Your task to perform on an android device: Go to settings Image 0: 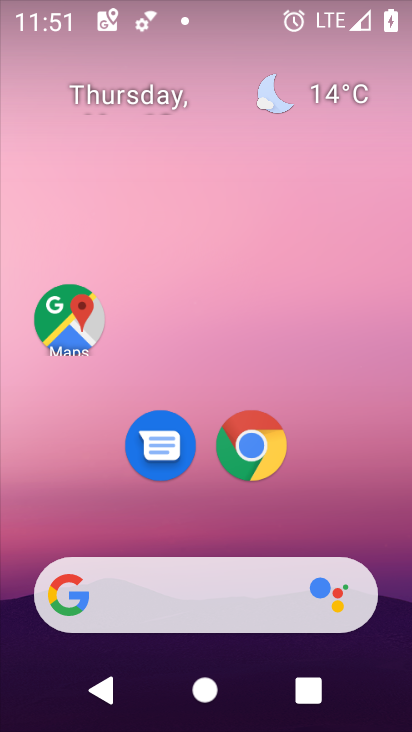
Step 0: drag from (199, 520) to (222, 174)
Your task to perform on an android device: Go to settings Image 1: 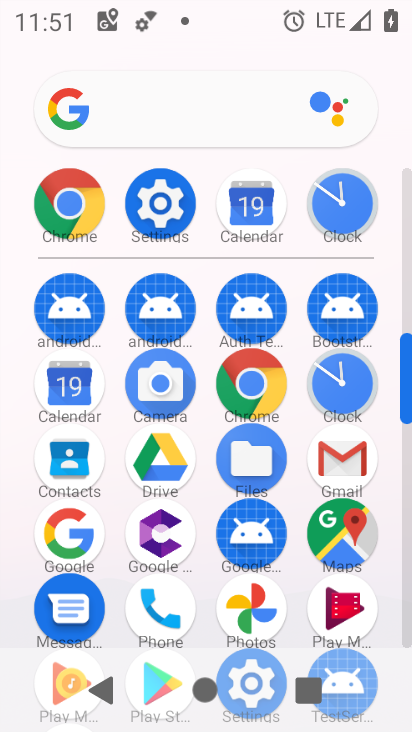
Step 1: click (144, 218)
Your task to perform on an android device: Go to settings Image 2: 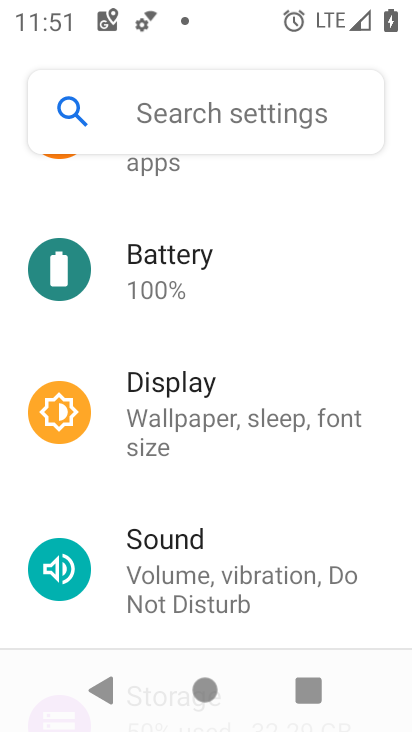
Step 2: task complete